Your task to perform on an android device: What's the news in South Korea? Image 0: 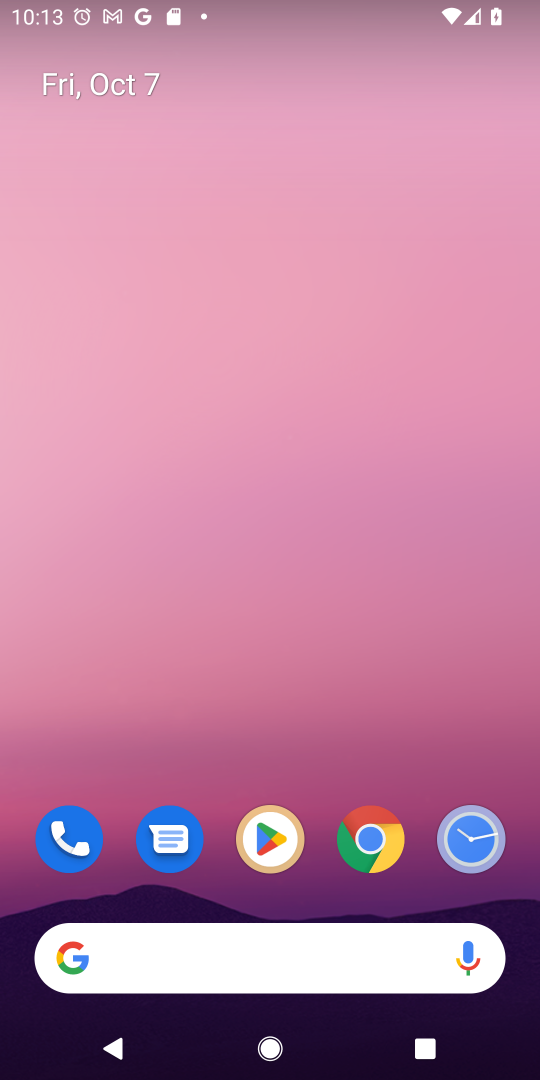
Step 0: click (354, 824)
Your task to perform on an android device: What's the news in South Korea? Image 1: 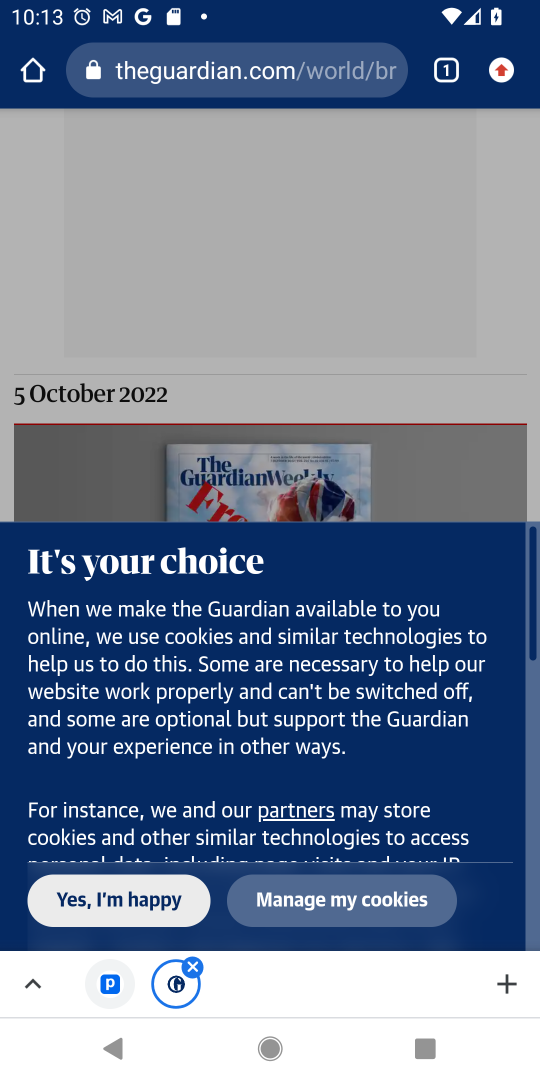
Step 1: press home button
Your task to perform on an android device: What's the news in South Korea? Image 2: 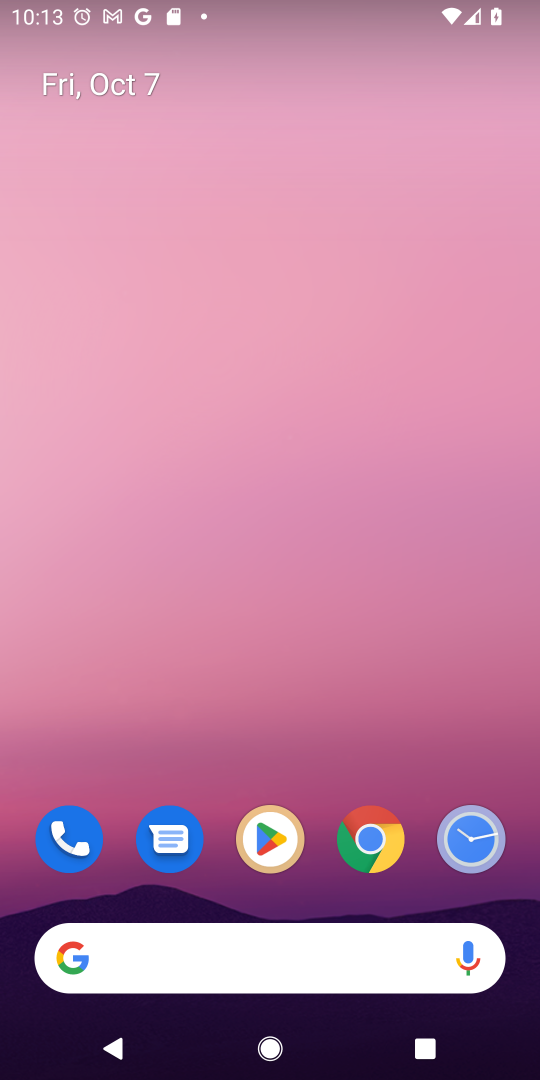
Step 2: click (370, 844)
Your task to perform on an android device: What's the news in South Korea? Image 3: 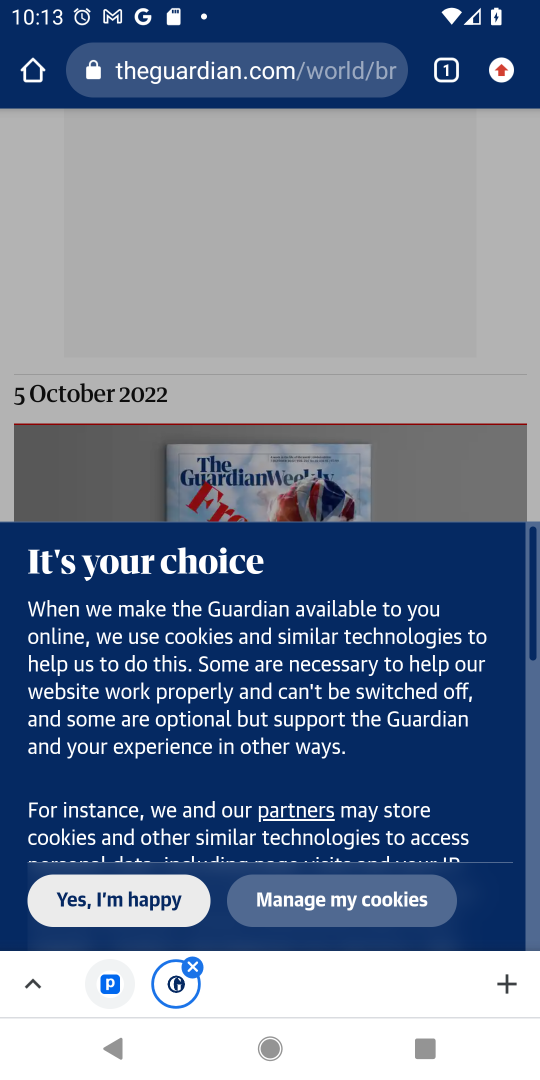
Step 3: click (310, 66)
Your task to perform on an android device: What's the news in South Korea? Image 4: 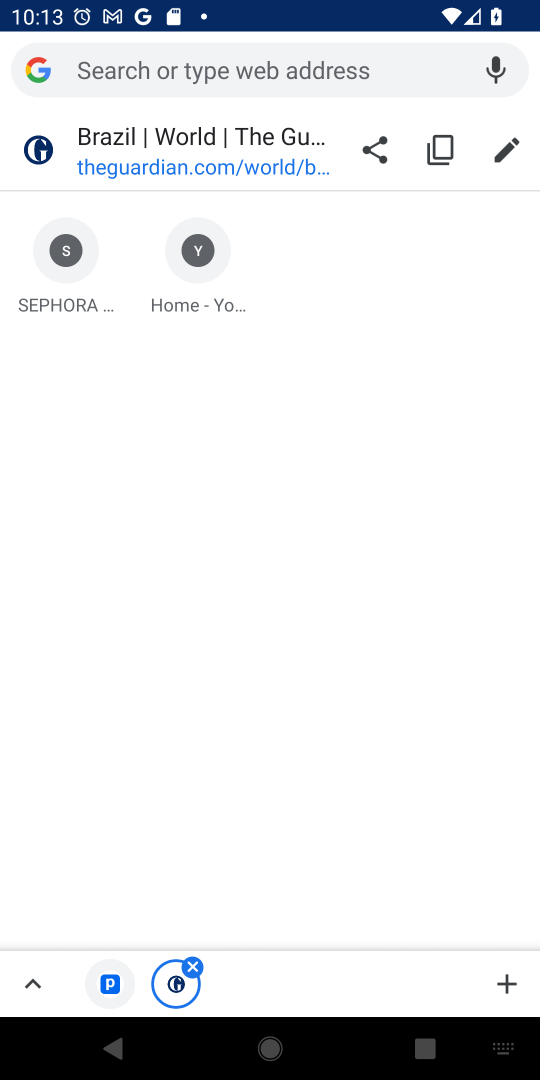
Step 4: type "news in south korea"
Your task to perform on an android device: What's the news in South Korea? Image 5: 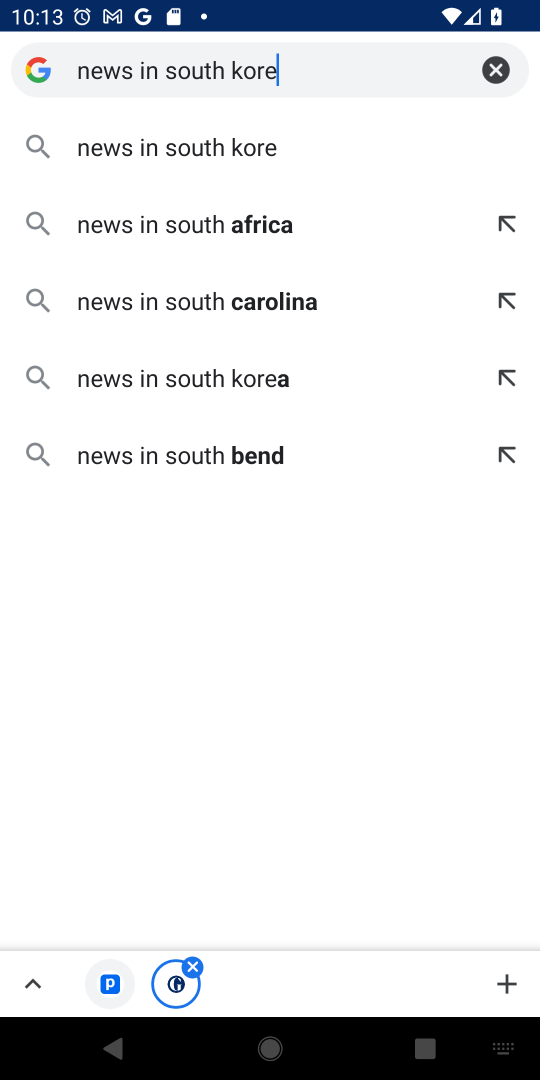
Step 5: type ""
Your task to perform on an android device: What's the news in South Korea? Image 6: 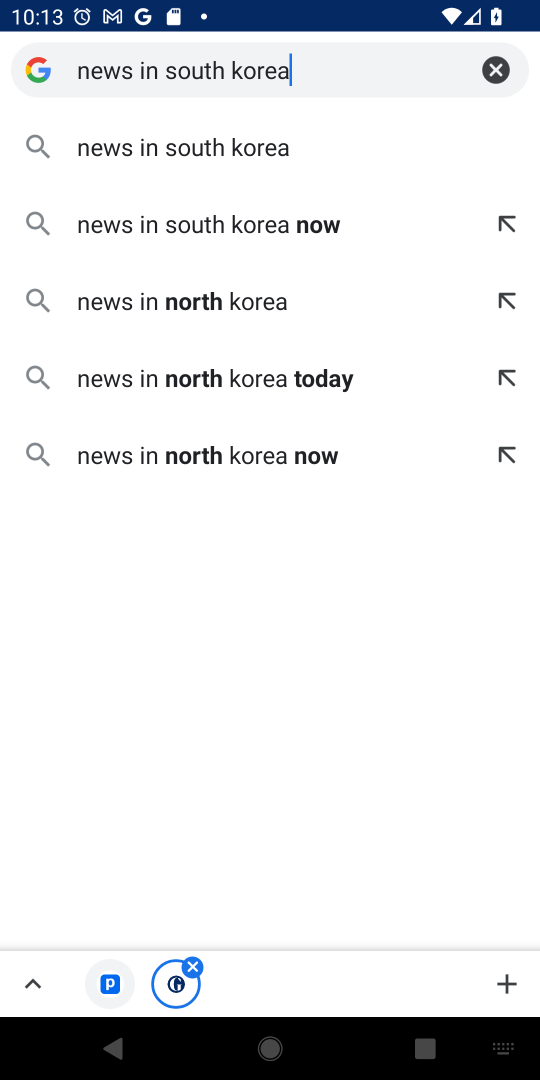
Step 6: click (250, 137)
Your task to perform on an android device: What's the news in South Korea? Image 7: 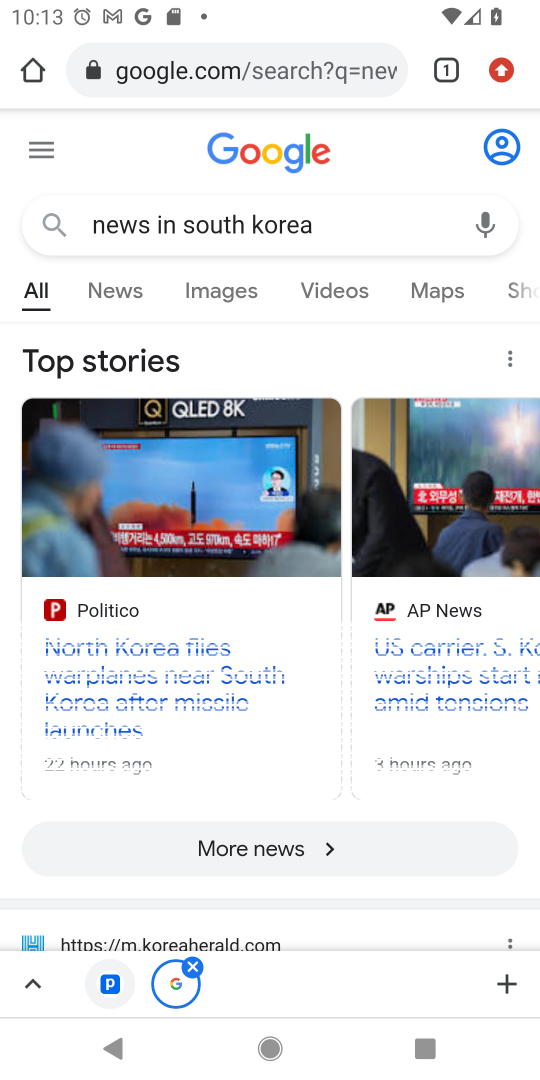
Step 7: click (117, 284)
Your task to perform on an android device: What's the news in South Korea? Image 8: 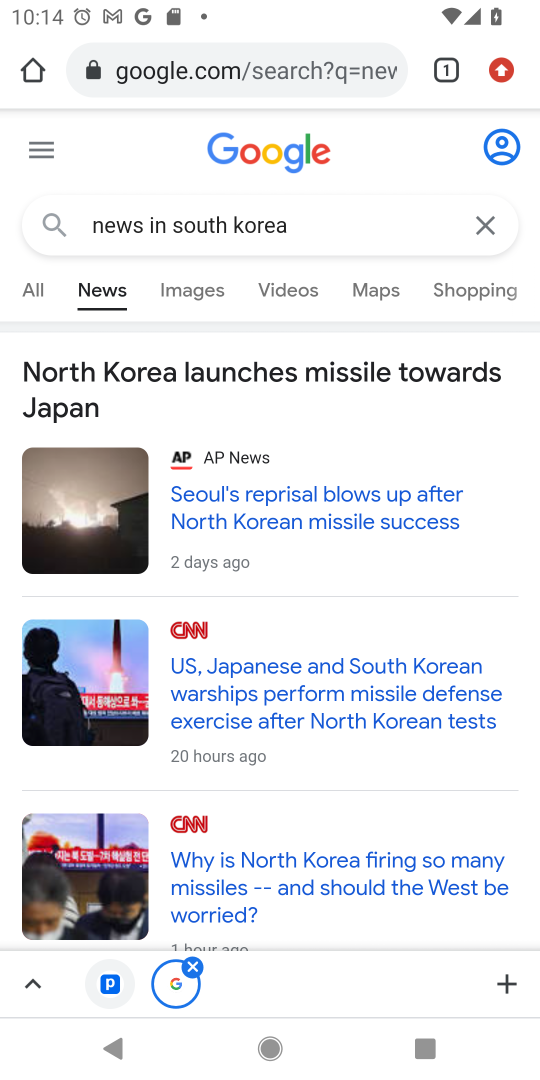
Step 8: drag from (222, 767) to (207, 391)
Your task to perform on an android device: What's the news in South Korea? Image 9: 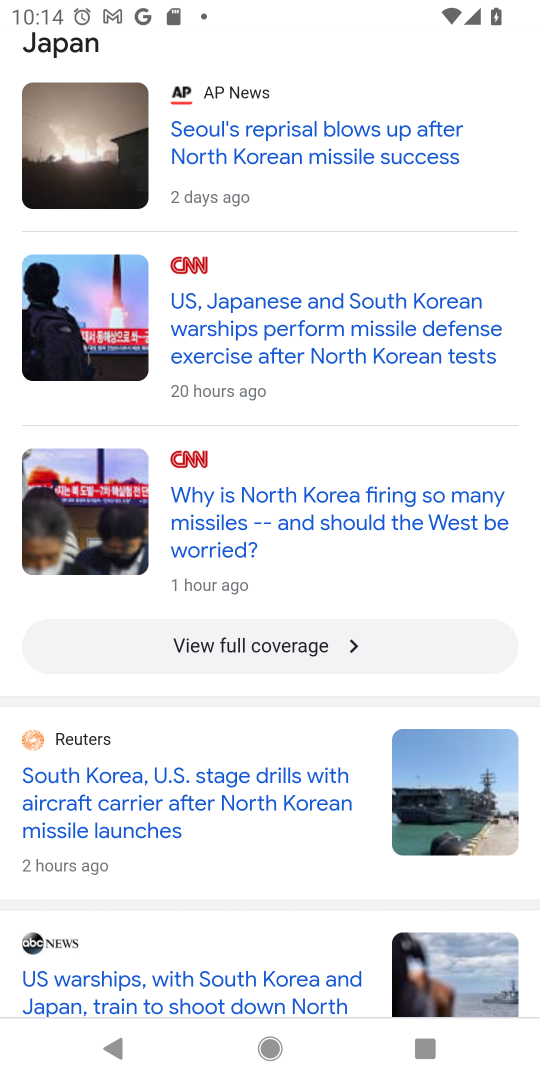
Step 9: drag from (160, 853) to (149, 461)
Your task to perform on an android device: What's the news in South Korea? Image 10: 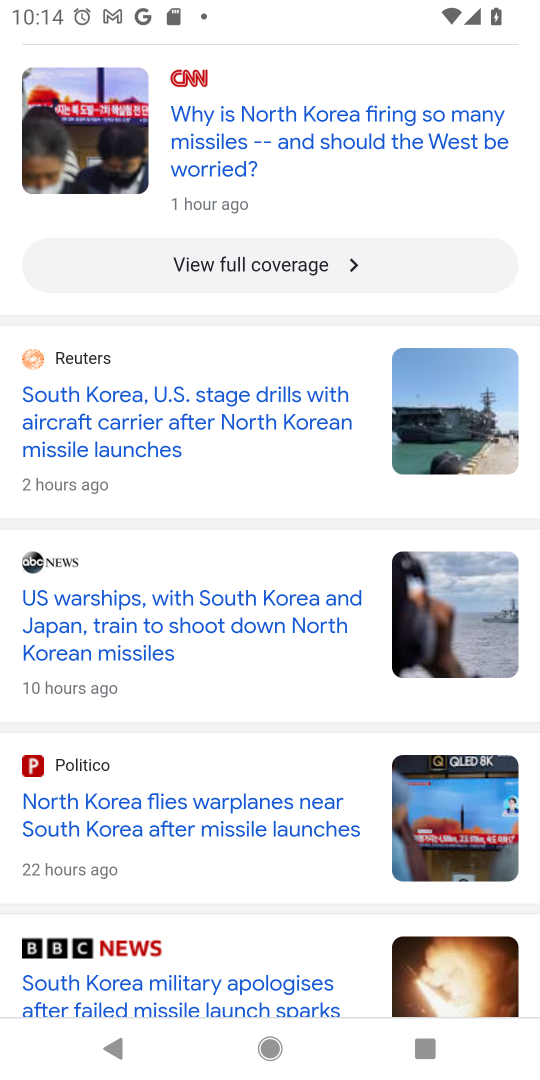
Step 10: drag from (131, 445) to (203, 972)
Your task to perform on an android device: What's the news in South Korea? Image 11: 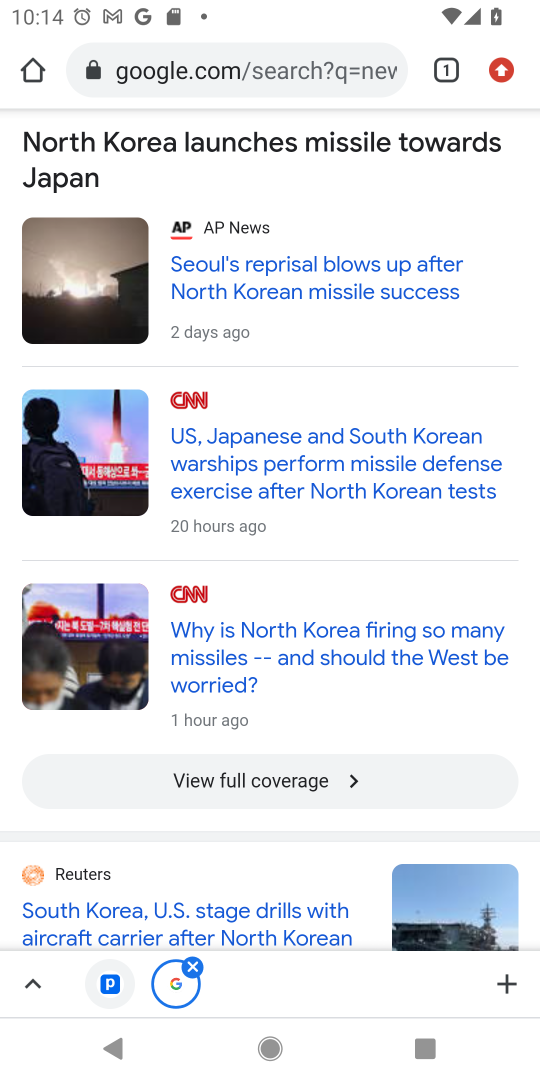
Step 11: drag from (180, 538) to (203, 889)
Your task to perform on an android device: What's the news in South Korea? Image 12: 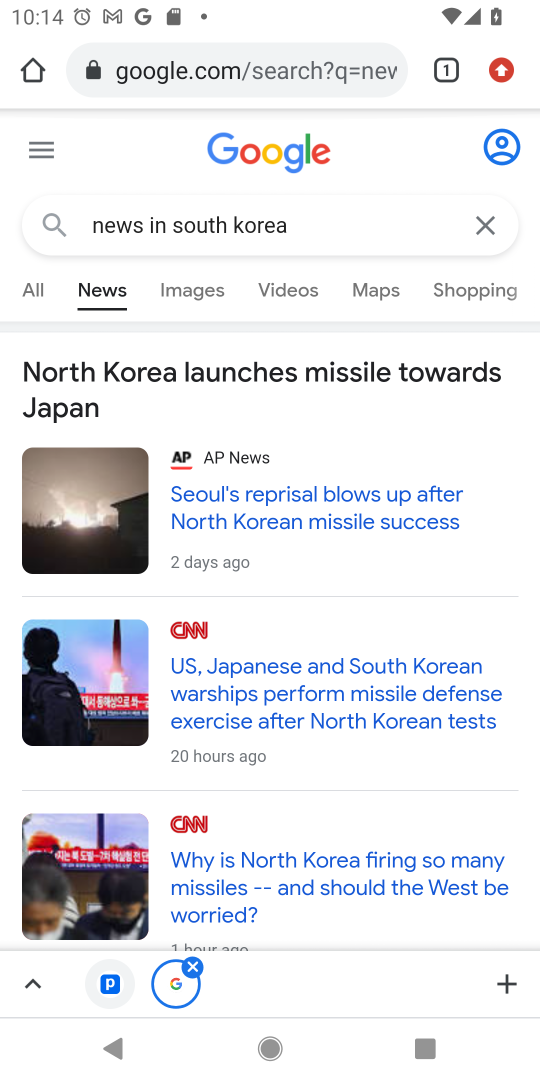
Step 12: drag from (283, 485) to (326, 838)
Your task to perform on an android device: What's the news in South Korea? Image 13: 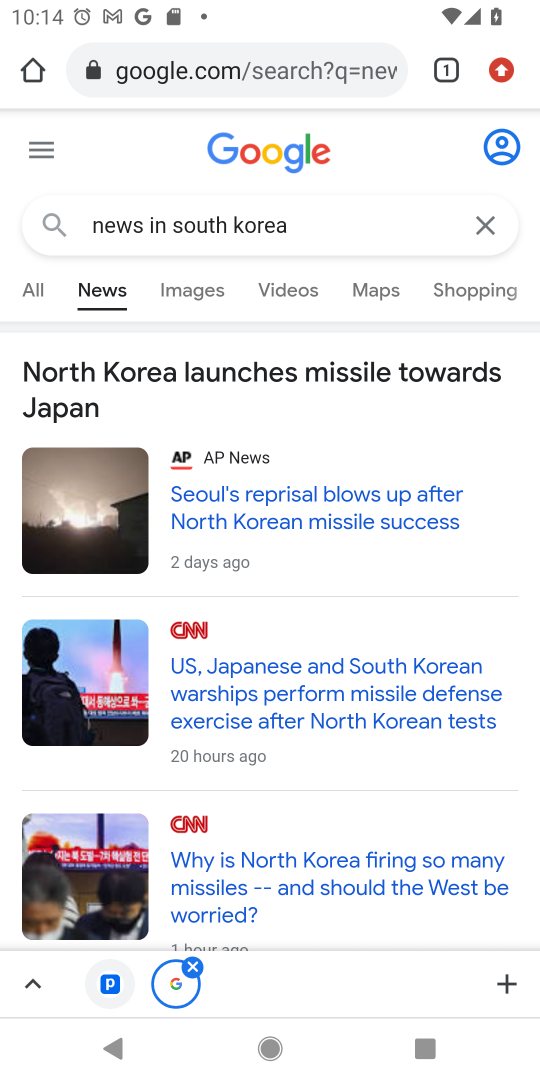
Step 13: drag from (361, 780) to (354, 318)
Your task to perform on an android device: What's the news in South Korea? Image 14: 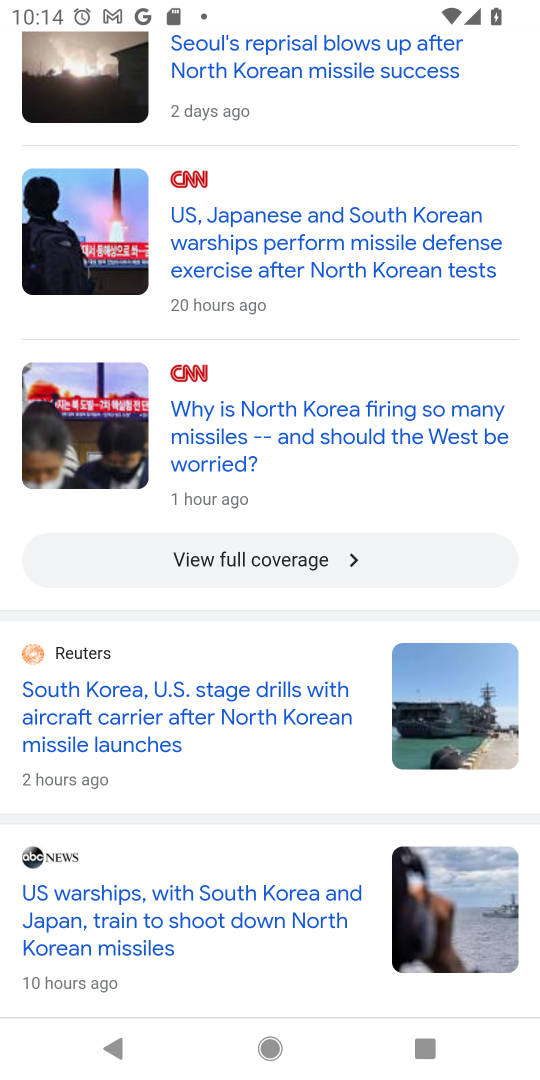
Step 14: drag from (162, 912) to (159, 422)
Your task to perform on an android device: What's the news in South Korea? Image 15: 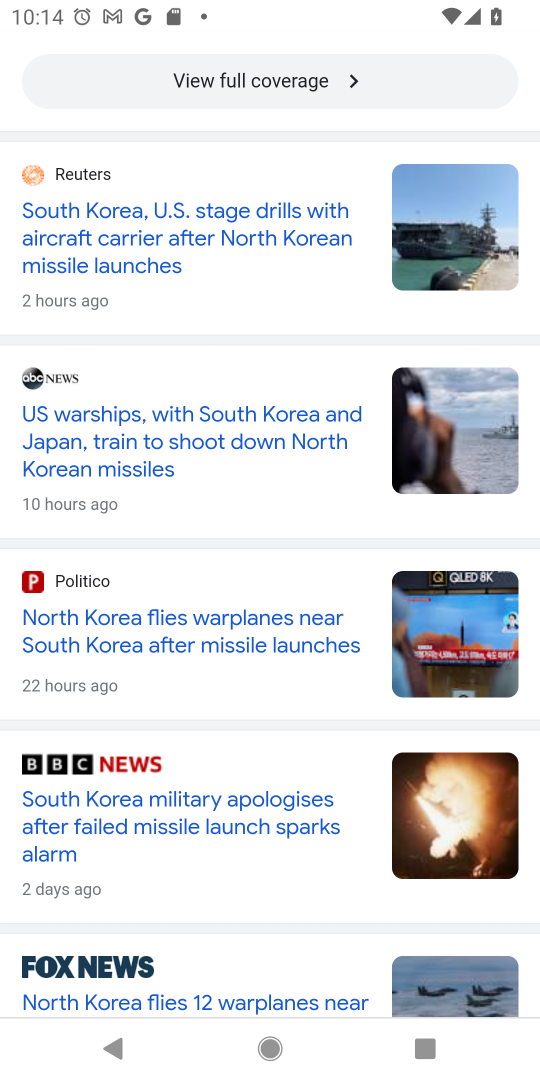
Step 15: click (113, 208)
Your task to perform on an android device: What's the news in South Korea? Image 16: 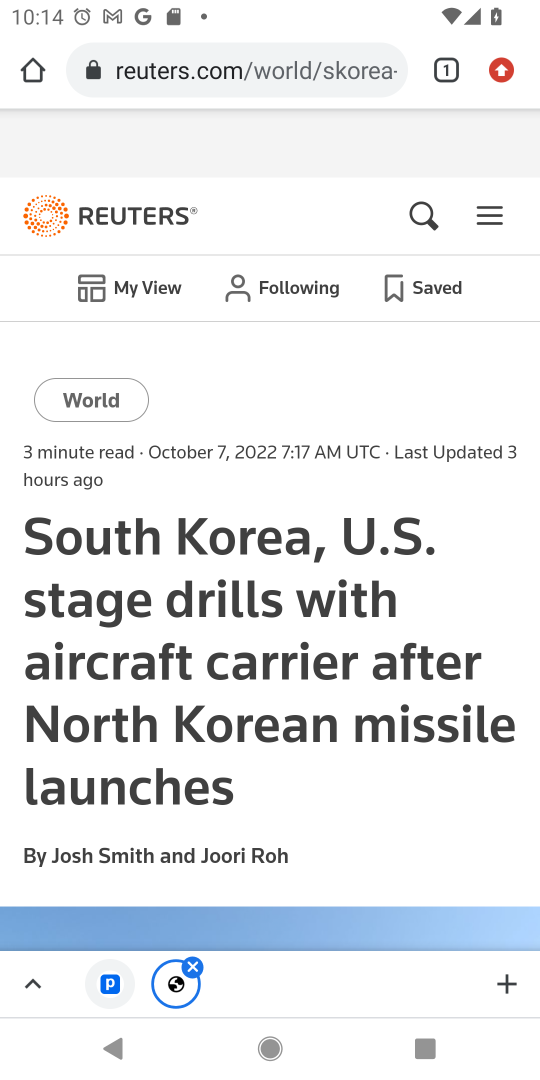
Step 16: task complete